Your task to perform on an android device: show emergency info Image 0: 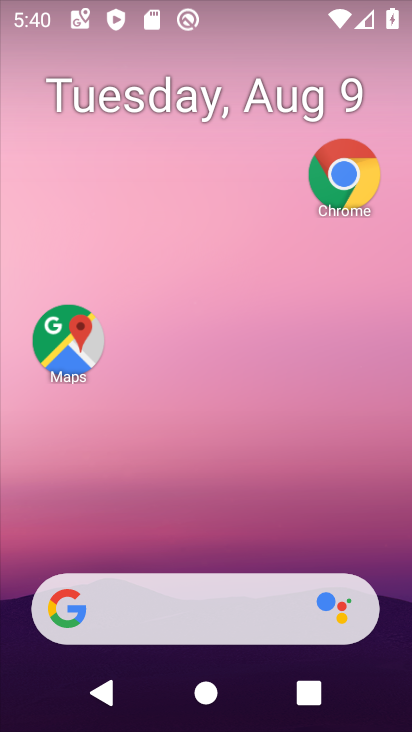
Step 0: click (170, 325)
Your task to perform on an android device: show emergency info Image 1: 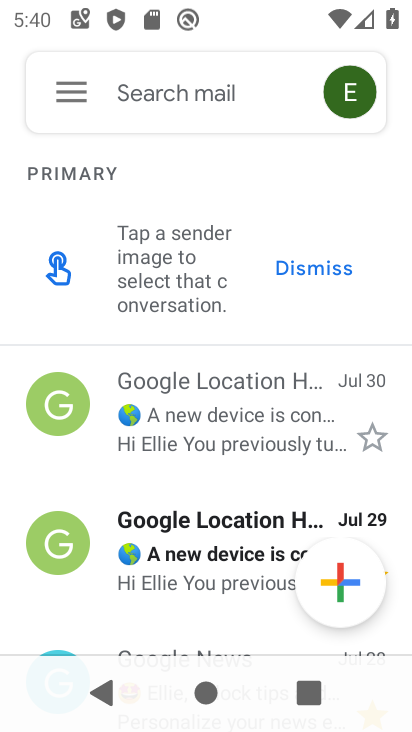
Step 1: drag from (166, 621) to (218, 127)
Your task to perform on an android device: show emergency info Image 2: 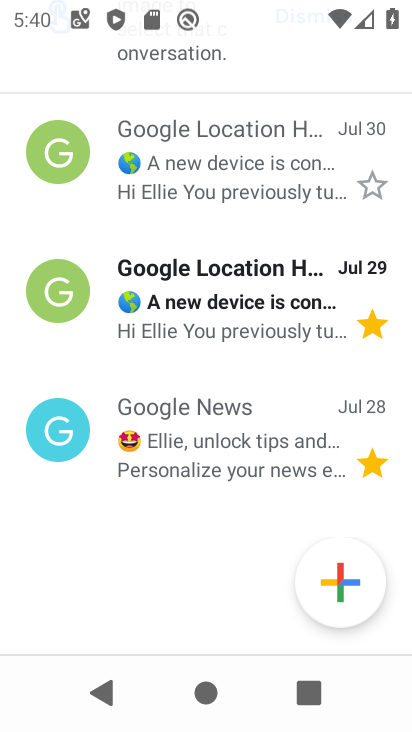
Step 2: drag from (192, 561) to (186, 234)
Your task to perform on an android device: show emergency info Image 3: 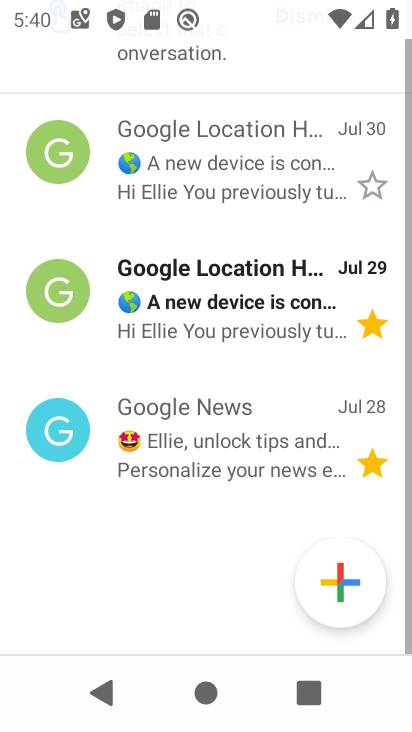
Step 3: drag from (184, 147) to (284, 469)
Your task to perform on an android device: show emergency info Image 4: 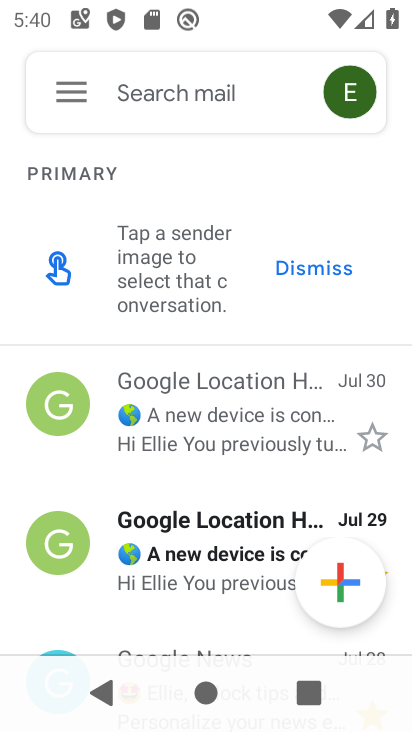
Step 4: drag from (201, 499) to (204, 350)
Your task to perform on an android device: show emergency info Image 5: 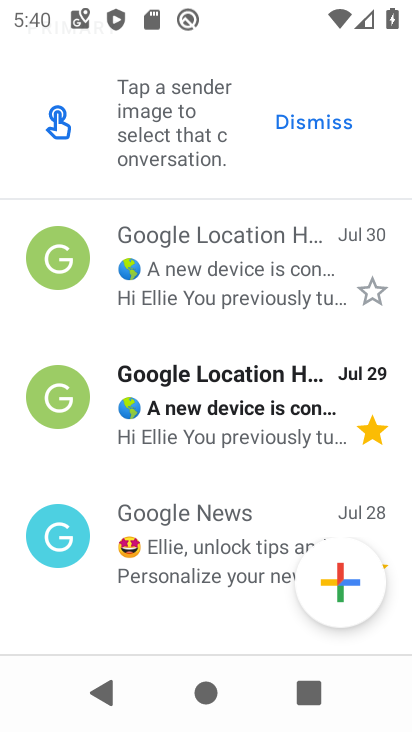
Step 5: drag from (208, 513) to (264, 115)
Your task to perform on an android device: show emergency info Image 6: 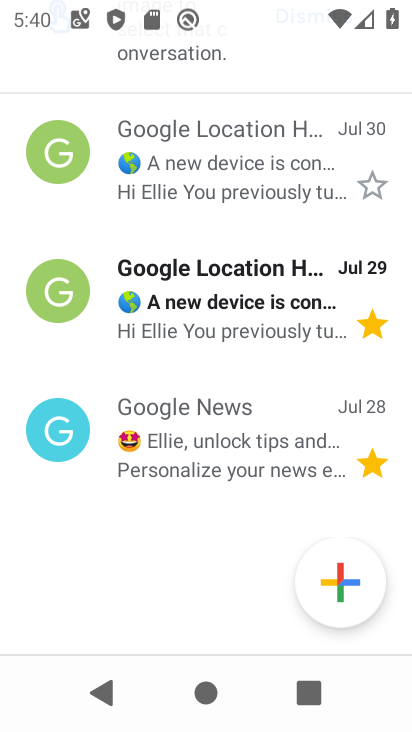
Step 6: drag from (215, 487) to (212, 253)
Your task to perform on an android device: show emergency info Image 7: 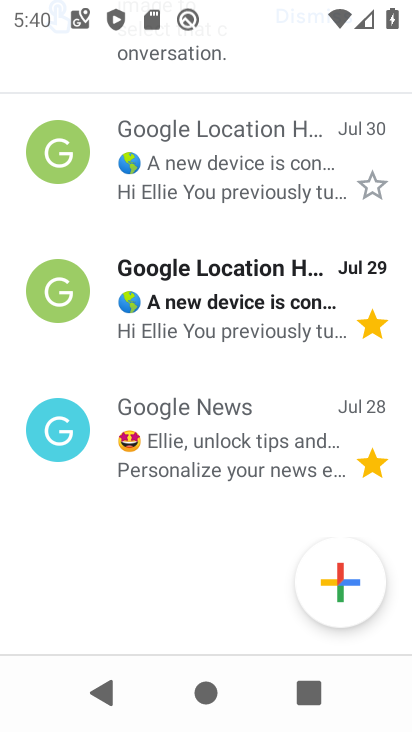
Step 7: drag from (216, 183) to (299, 582)
Your task to perform on an android device: show emergency info Image 8: 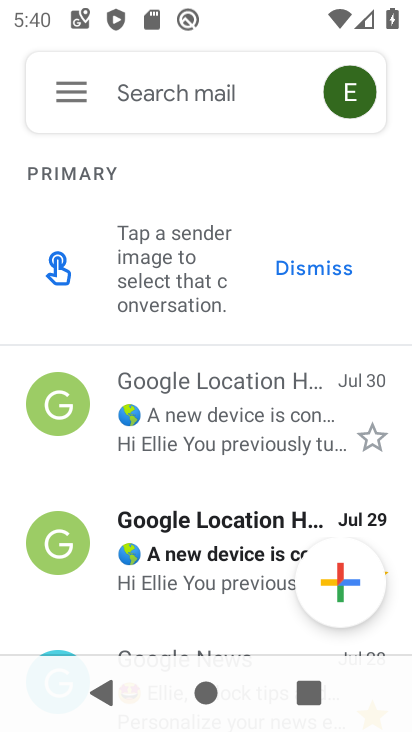
Step 8: drag from (250, 492) to (263, 237)
Your task to perform on an android device: show emergency info Image 9: 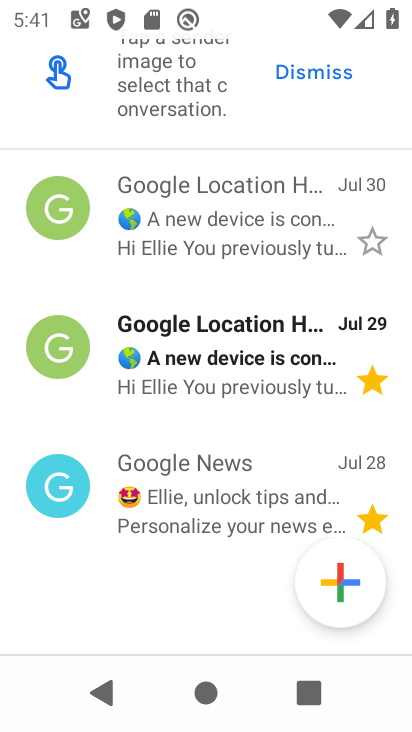
Step 9: drag from (254, 247) to (259, 522)
Your task to perform on an android device: show emergency info Image 10: 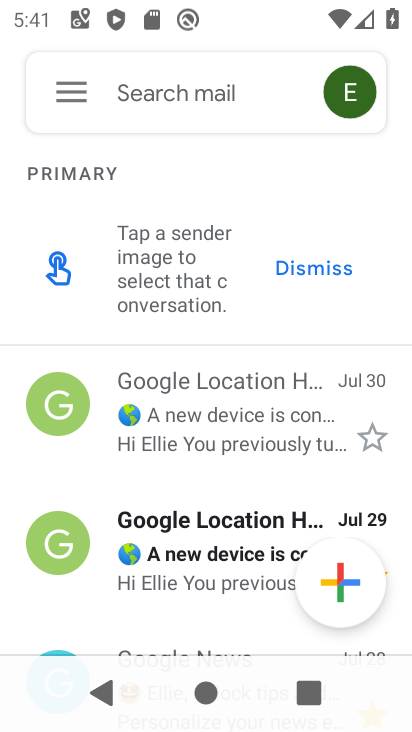
Step 10: click (297, 258)
Your task to perform on an android device: show emergency info Image 11: 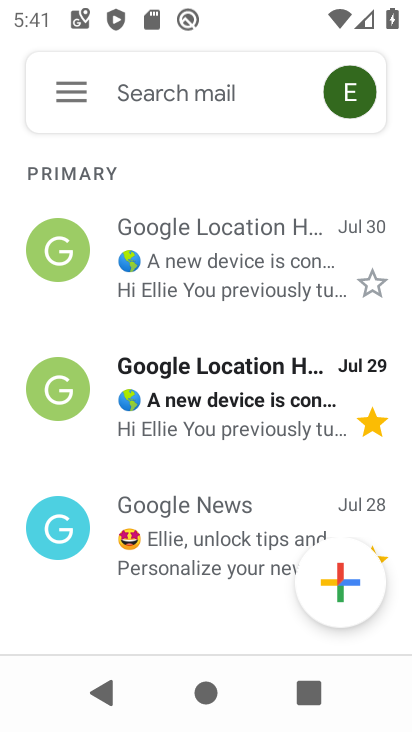
Step 11: drag from (189, 585) to (242, 257)
Your task to perform on an android device: show emergency info Image 12: 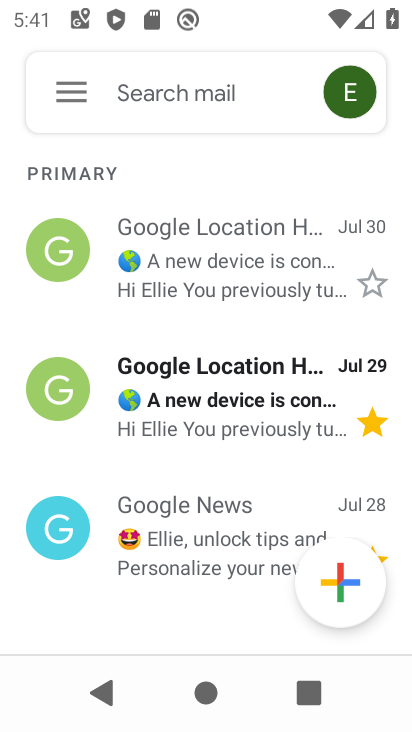
Step 12: click (67, 87)
Your task to perform on an android device: show emergency info Image 13: 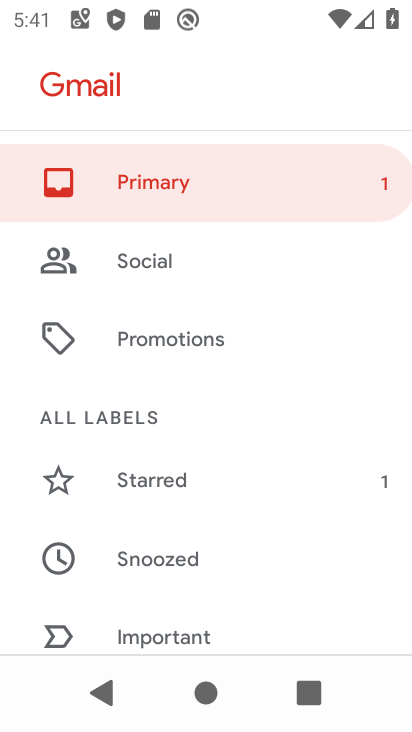
Step 13: drag from (140, 529) to (185, 88)
Your task to perform on an android device: show emergency info Image 14: 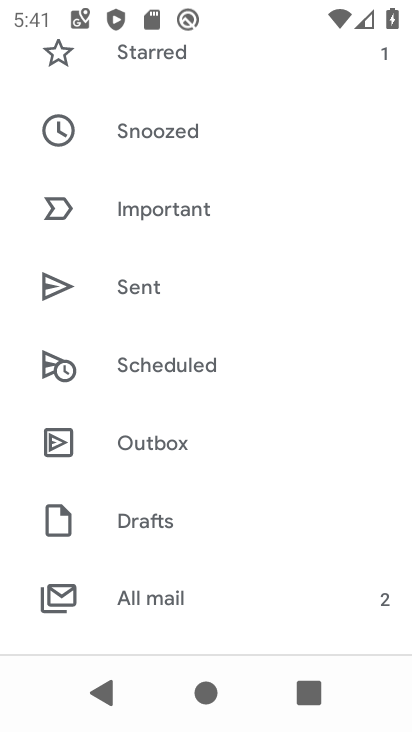
Step 14: drag from (159, 571) to (203, 238)
Your task to perform on an android device: show emergency info Image 15: 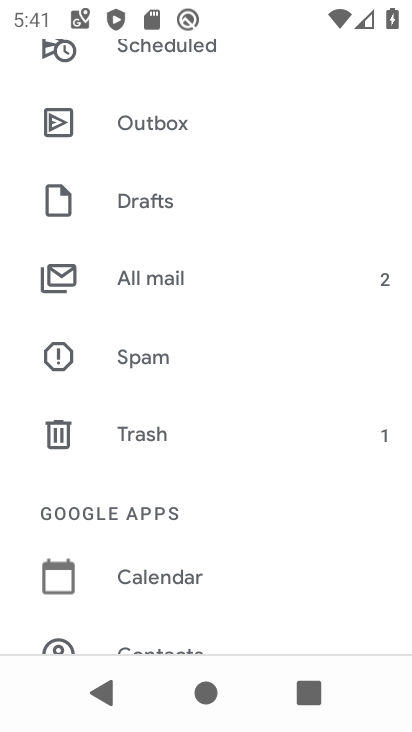
Step 15: drag from (151, 629) to (217, 290)
Your task to perform on an android device: show emergency info Image 16: 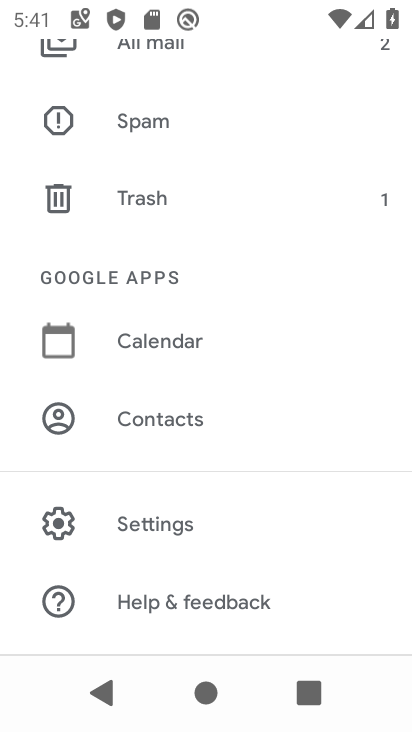
Step 16: press home button
Your task to perform on an android device: show emergency info Image 17: 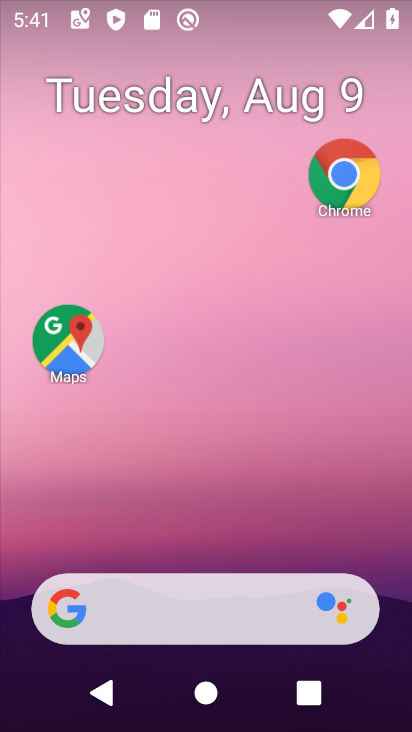
Step 17: drag from (210, 549) to (265, 132)
Your task to perform on an android device: show emergency info Image 18: 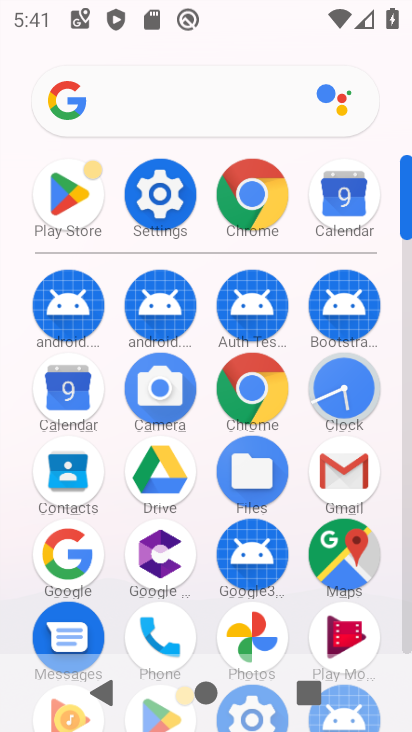
Step 18: click (150, 190)
Your task to perform on an android device: show emergency info Image 19: 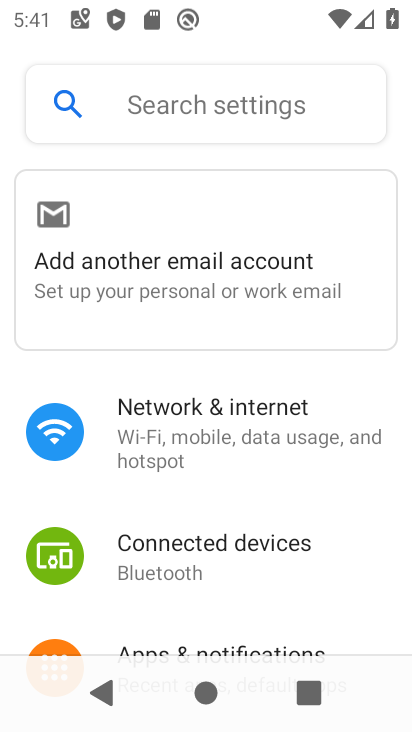
Step 19: drag from (201, 564) to (296, 65)
Your task to perform on an android device: show emergency info Image 20: 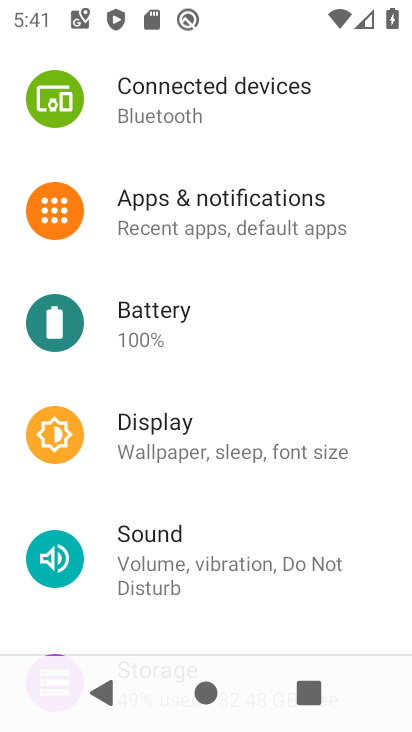
Step 20: drag from (204, 505) to (206, 71)
Your task to perform on an android device: show emergency info Image 21: 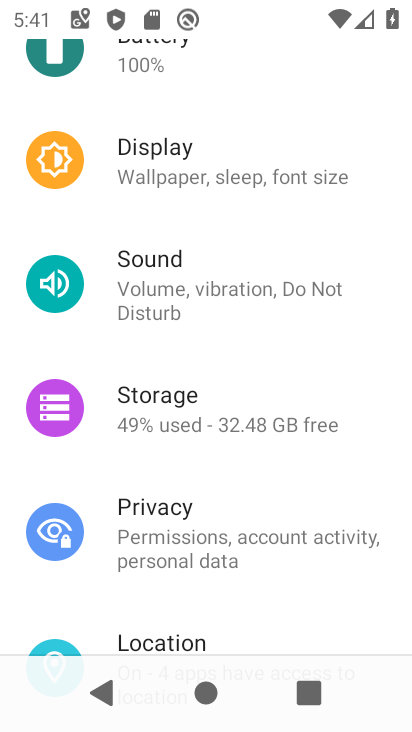
Step 21: drag from (207, 554) to (268, 159)
Your task to perform on an android device: show emergency info Image 22: 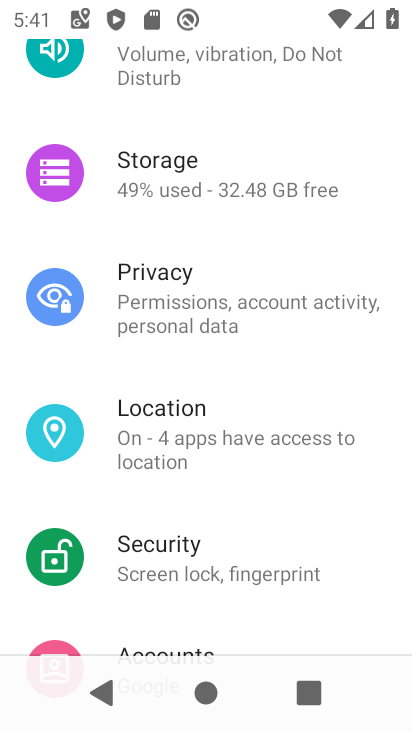
Step 22: drag from (201, 536) to (274, 87)
Your task to perform on an android device: show emergency info Image 23: 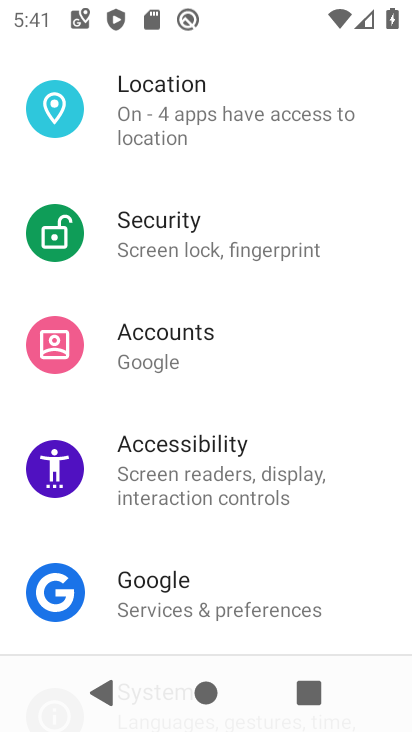
Step 23: drag from (189, 580) to (237, 73)
Your task to perform on an android device: show emergency info Image 24: 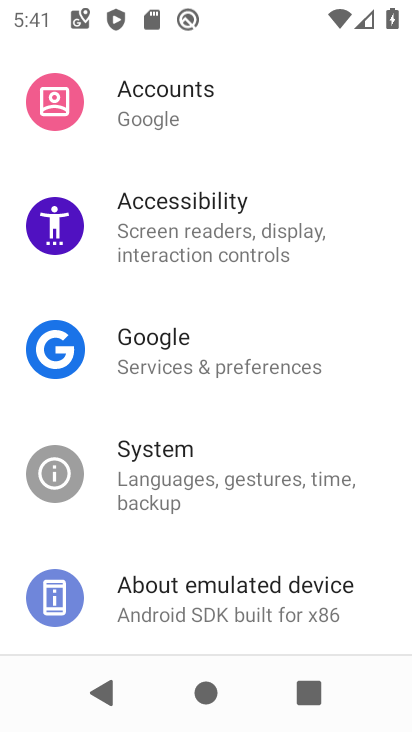
Step 24: click (205, 595)
Your task to perform on an android device: show emergency info Image 25: 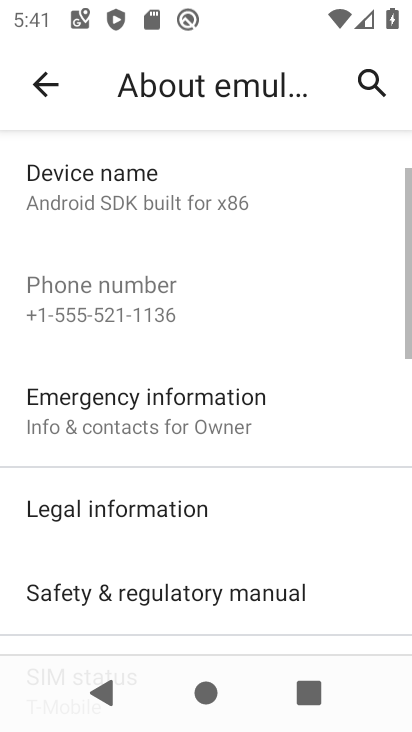
Step 25: click (146, 424)
Your task to perform on an android device: show emergency info Image 26: 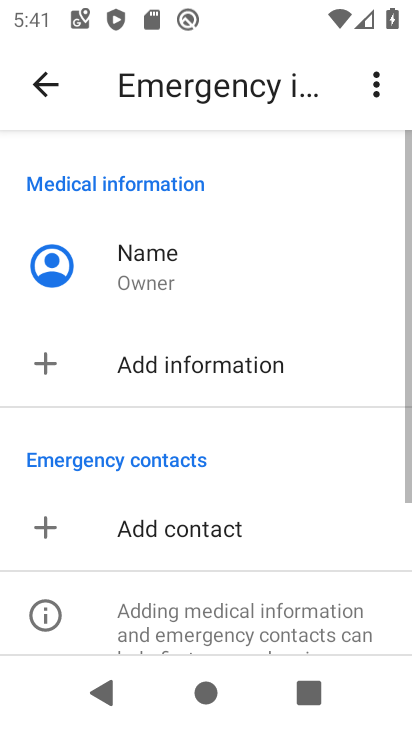
Step 26: task complete